Your task to perform on an android device: Open Wikipedia Image 0: 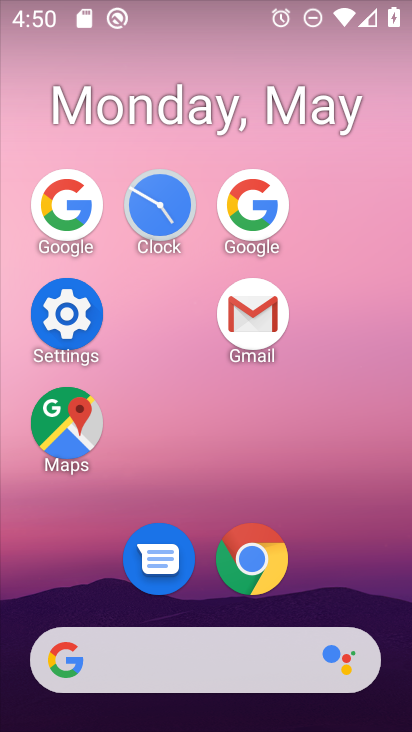
Step 0: click (267, 581)
Your task to perform on an android device: Open Wikipedia Image 1: 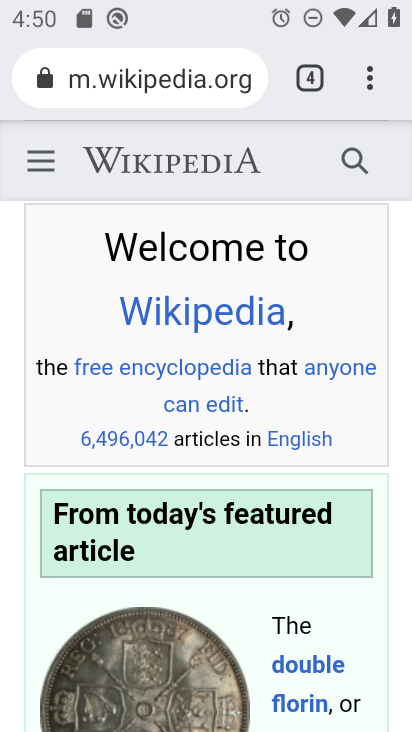
Step 1: task complete